Your task to perform on an android device: Open Google Maps and go to "Timeline" Image 0: 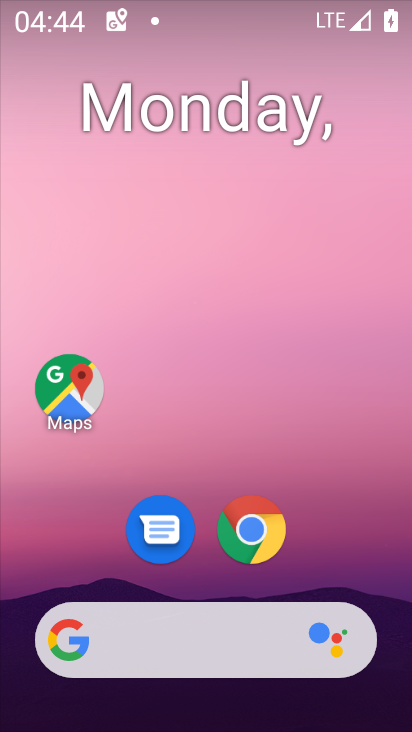
Step 0: click (52, 374)
Your task to perform on an android device: Open Google Maps and go to "Timeline" Image 1: 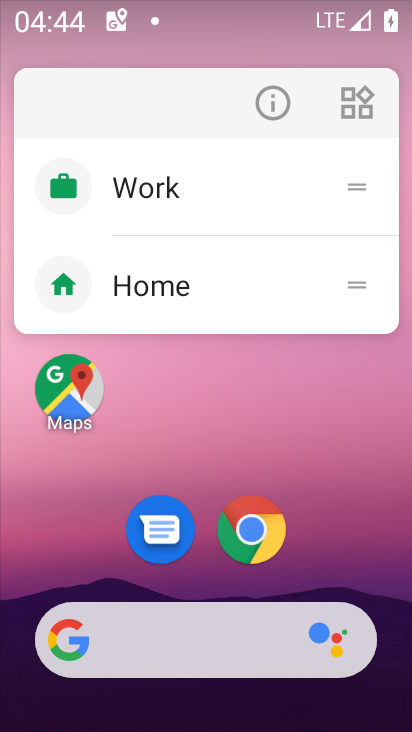
Step 1: click (52, 374)
Your task to perform on an android device: Open Google Maps and go to "Timeline" Image 2: 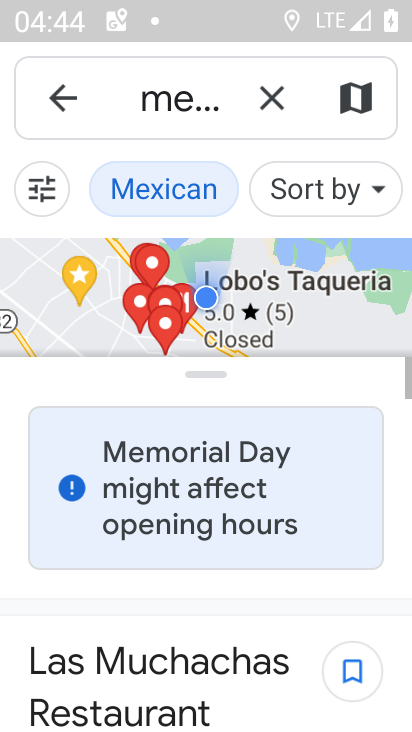
Step 2: click (67, 108)
Your task to perform on an android device: Open Google Maps and go to "Timeline" Image 3: 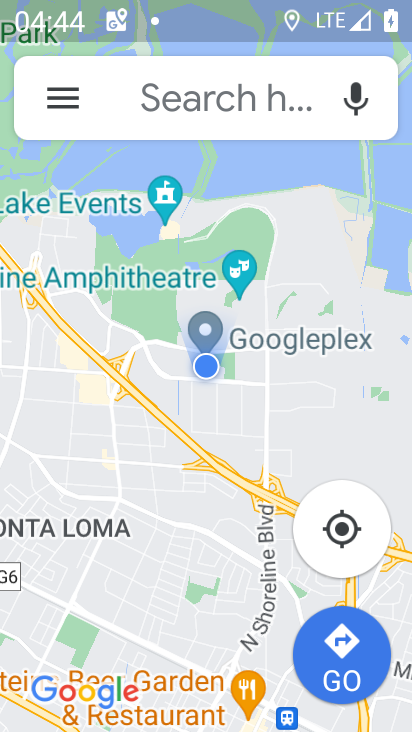
Step 3: click (67, 108)
Your task to perform on an android device: Open Google Maps and go to "Timeline" Image 4: 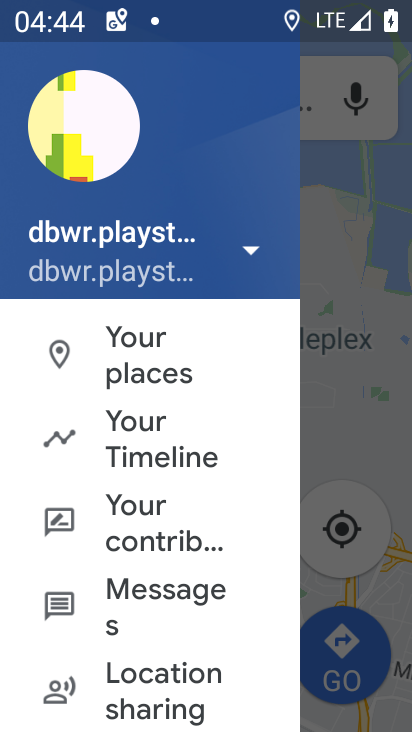
Step 4: click (186, 452)
Your task to perform on an android device: Open Google Maps and go to "Timeline" Image 5: 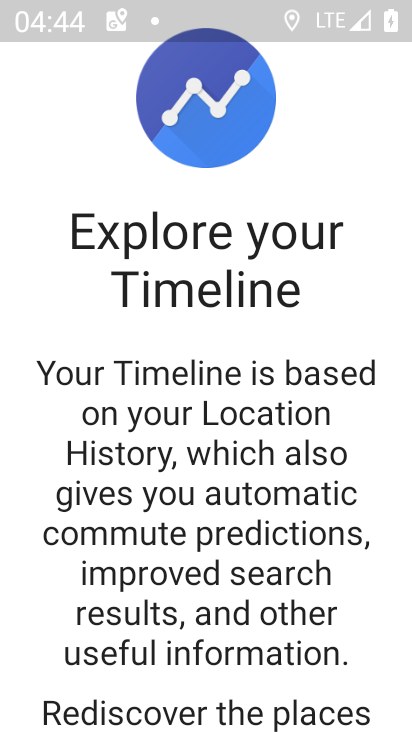
Step 5: drag from (321, 651) to (261, 154)
Your task to perform on an android device: Open Google Maps and go to "Timeline" Image 6: 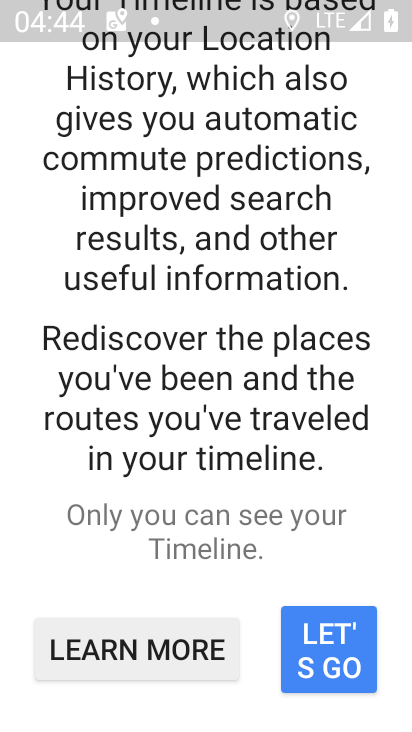
Step 6: click (328, 641)
Your task to perform on an android device: Open Google Maps and go to "Timeline" Image 7: 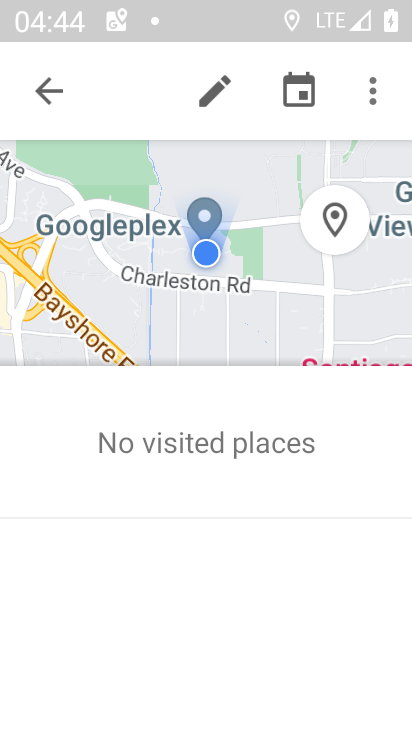
Step 7: task complete